Your task to perform on an android device: find snoozed emails in the gmail app Image 0: 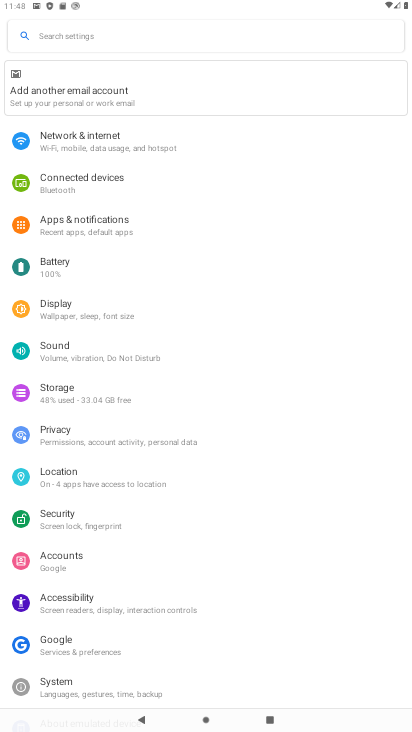
Step 0: press home button
Your task to perform on an android device: find snoozed emails in the gmail app Image 1: 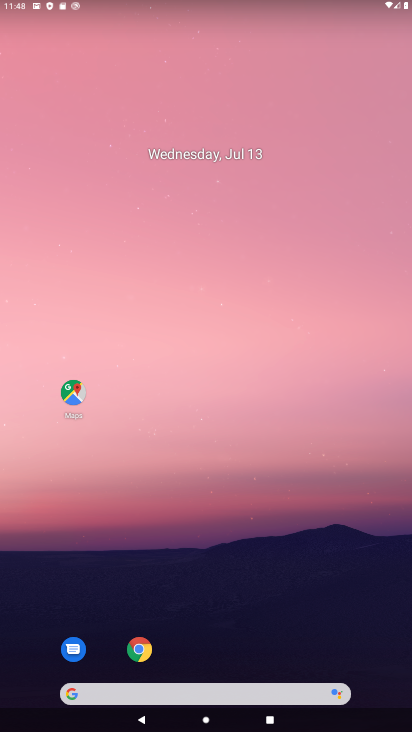
Step 1: drag from (268, 632) to (279, 135)
Your task to perform on an android device: find snoozed emails in the gmail app Image 2: 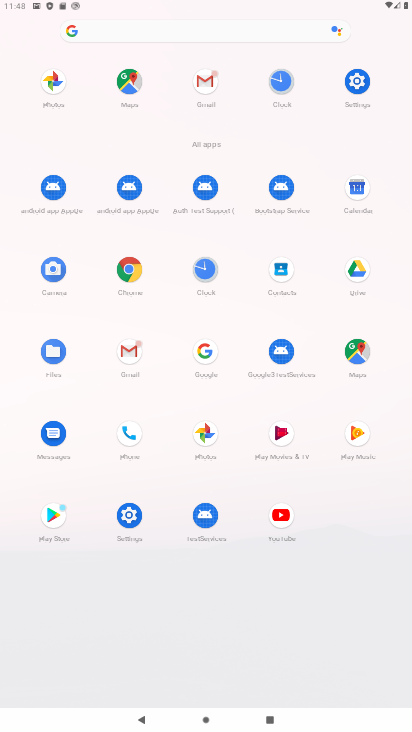
Step 2: click (137, 354)
Your task to perform on an android device: find snoozed emails in the gmail app Image 3: 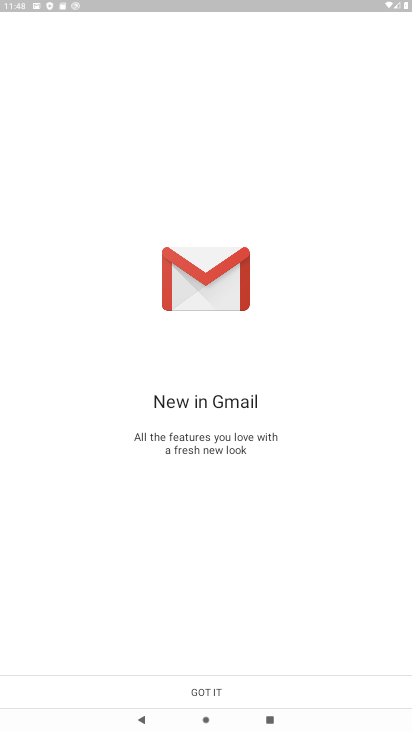
Step 3: click (218, 692)
Your task to perform on an android device: find snoozed emails in the gmail app Image 4: 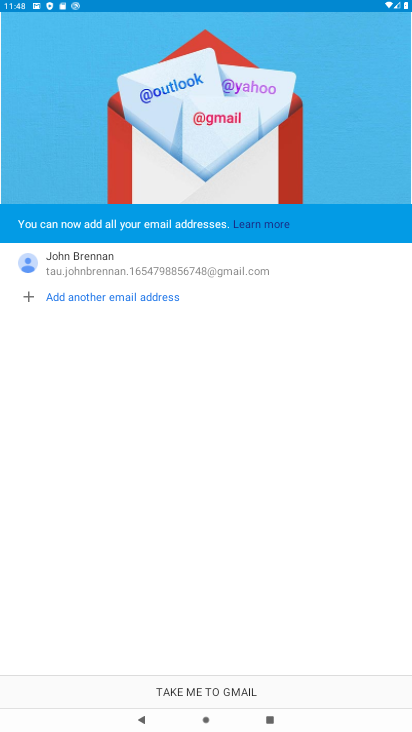
Step 4: click (218, 692)
Your task to perform on an android device: find snoozed emails in the gmail app Image 5: 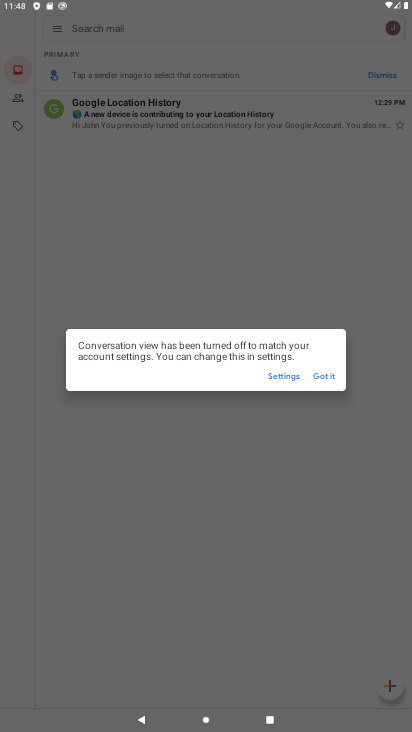
Step 5: click (332, 376)
Your task to perform on an android device: find snoozed emails in the gmail app Image 6: 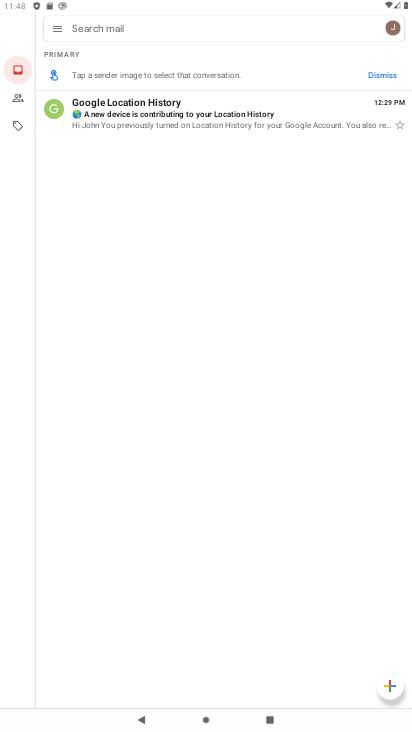
Step 6: click (55, 31)
Your task to perform on an android device: find snoozed emails in the gmail app Image 7: 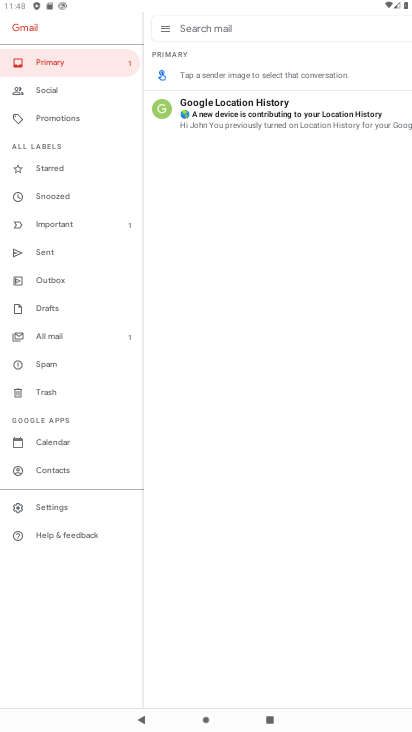
Step 7: click (58, 199)
Your task to perform on an android device: find snoozed emails in the gmail app Image 8: 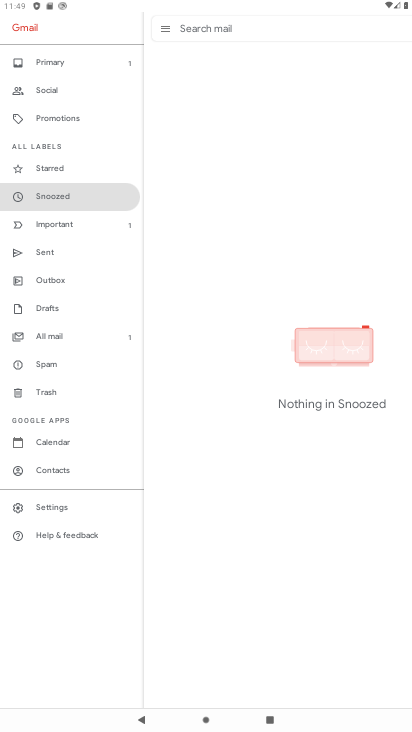
Step 8: task complete